Your task to perform on an android device: see sites visited before in the chrome app Image 0: 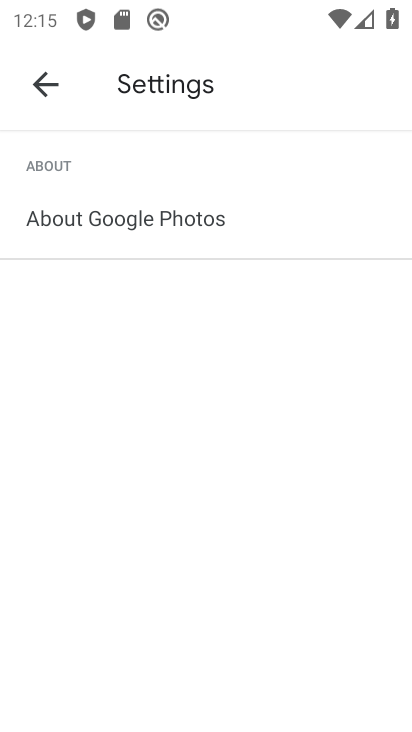
Step 0: press home button
Your task to perform on an android device: see sites visited before in the chrome app Image 1: 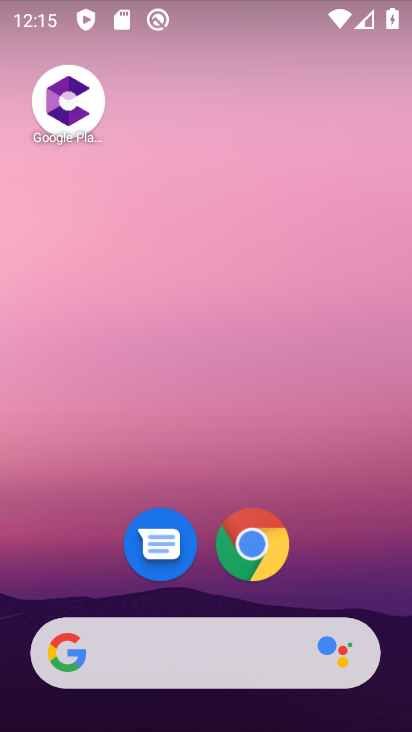
Step 1: click (276, 566)
Your task to perform on an android device: see sites visited before in the chrome app Image 2: 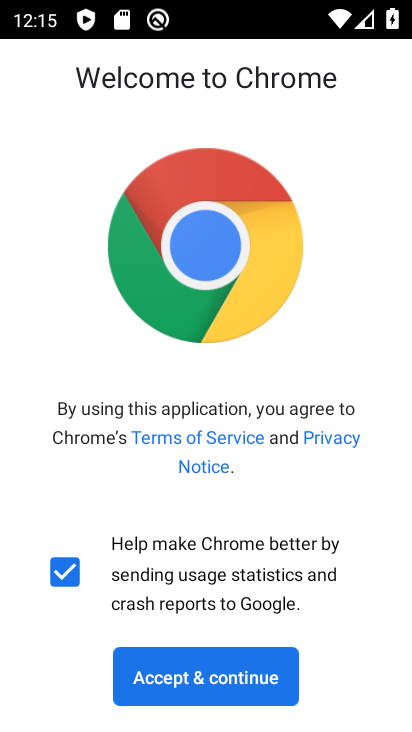
Step 2: click (243, 675)
Your task to perform on an android device: see sites visited before in the chrome app Image 3: 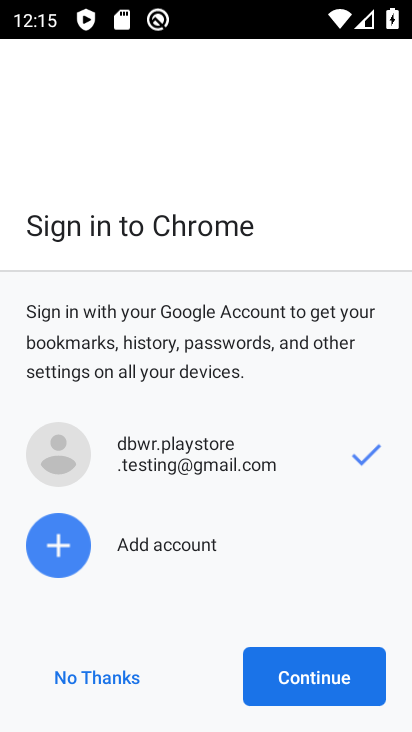
Step 3: click (346, 684)
Your task to perform on an android device: see sites visited before in the chrome app Image 4: 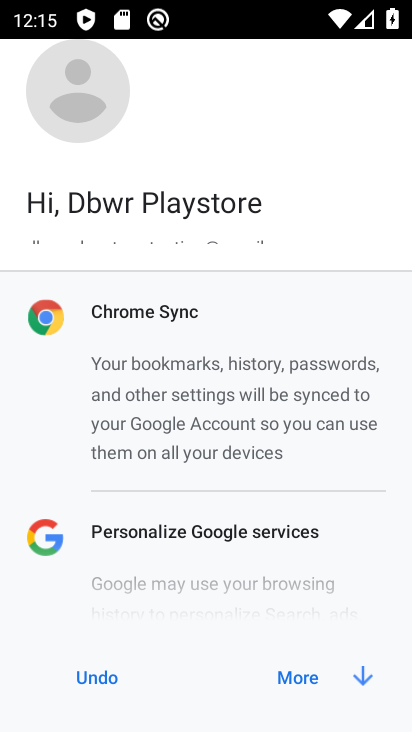
Step 4: click (343, 680)
Your task to perform on an android device: see sites visited before in the chrome app Image 5: 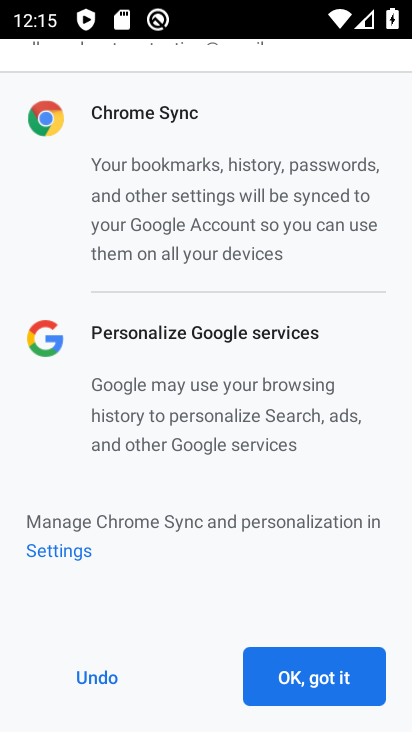
Step 5: click (348, 669)
Your task to perform on an android device: see sites visited before in the chrome app Image 6: 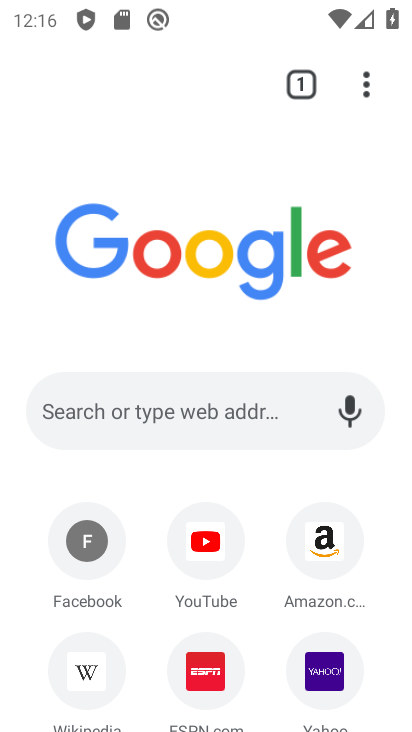
Step 6: click (380, 89)
Your task to perform on an android device: see sites visited before in the chrome app Image 7: 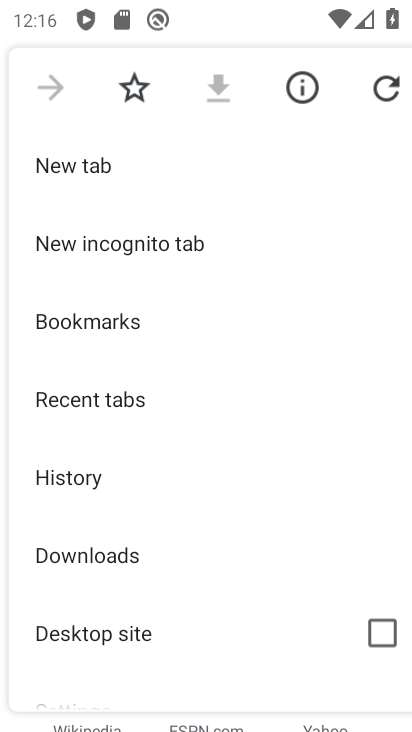
Step 7: click (181, 414)
Your task to perform on an android device: see sites visited before in the chrome app Image 8: 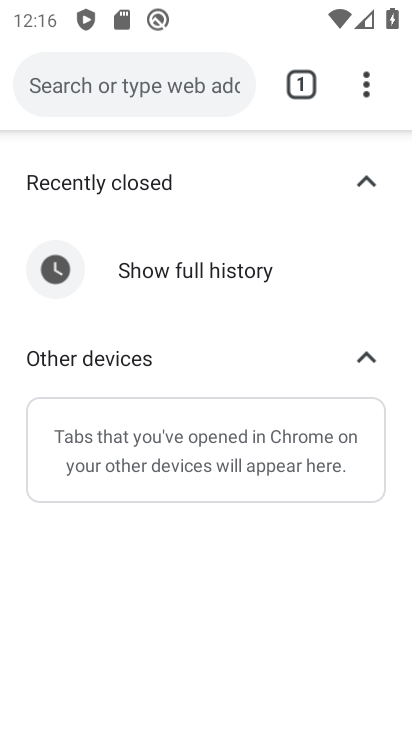
Step 8: task complete